Your task to perform on an android device: toggle location history Image 0: 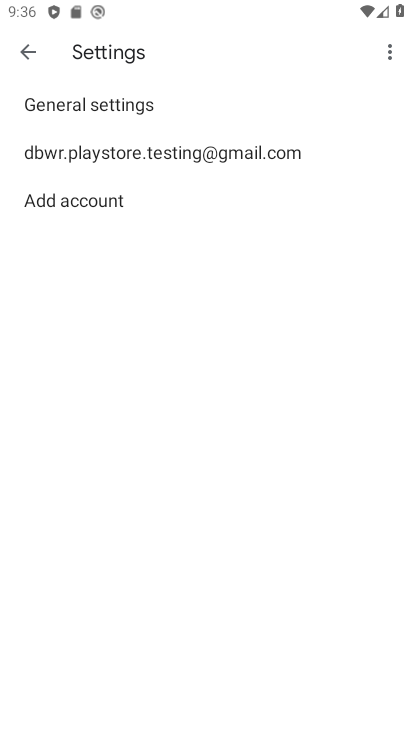
Step 0: press home button
Your task to perform on an android device: toggle location history Image 1: 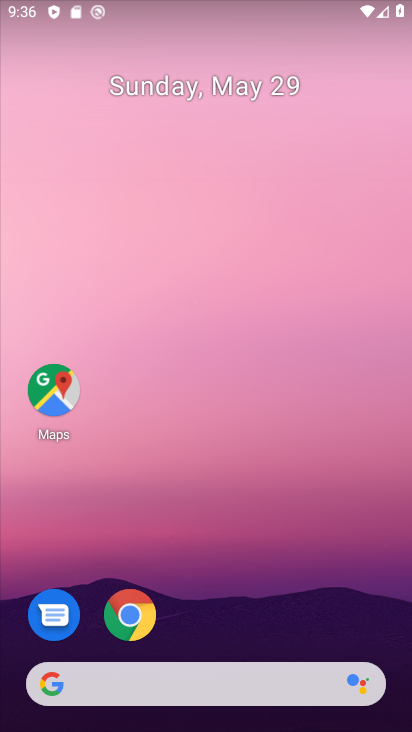
Step 1: drag from (212, 643) to (130, 67)
Your task to perform on an android device: toggle location history Image 2: 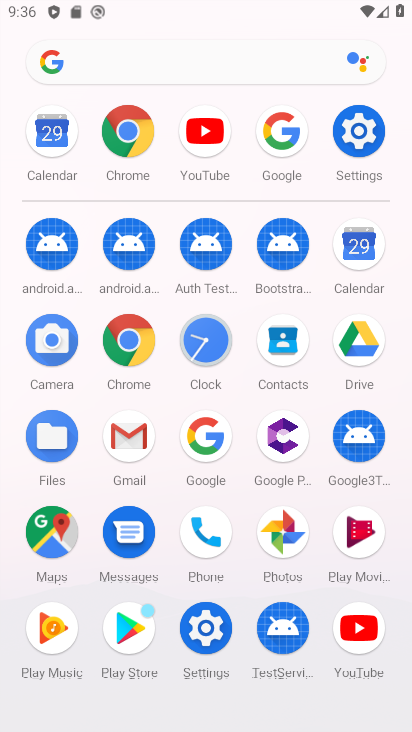
Step 2: click (374, 136)
Your task to perform on an android device: toggle location history Image 3: 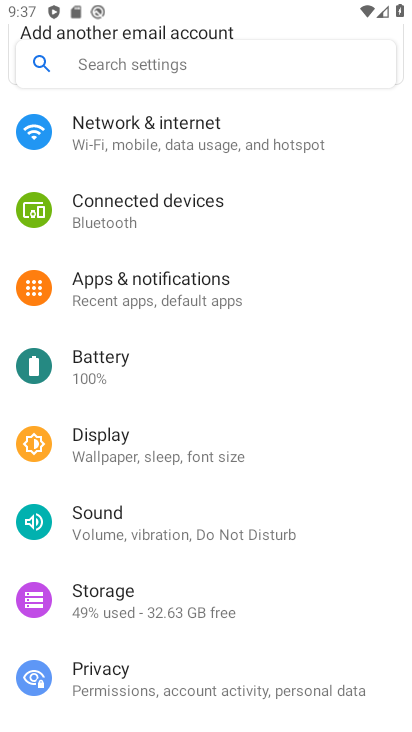
Step 3: drag from (199, 588) to (130, 126)
Your task to perform on an android device: toggle location history Image 4: 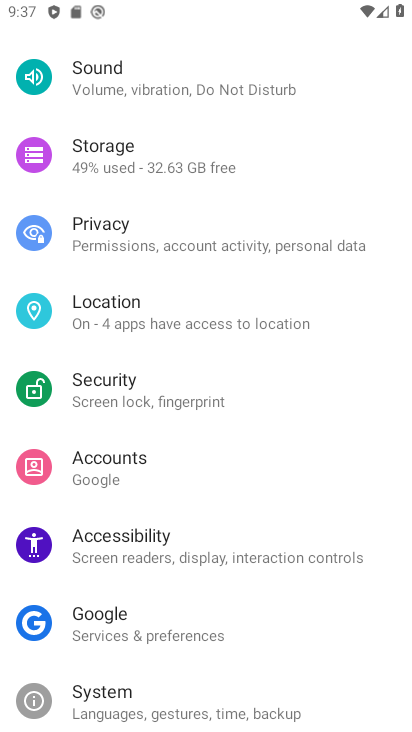
Step 4: click (103, 313)
Your task to perform on an android device: toggle location history Image 5: 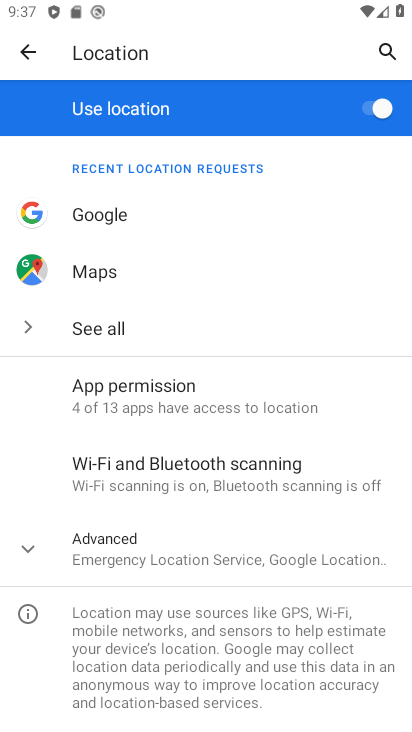
Step 5: click (192, 550)
Your task to perform on an android device: toggle location history Image 6: 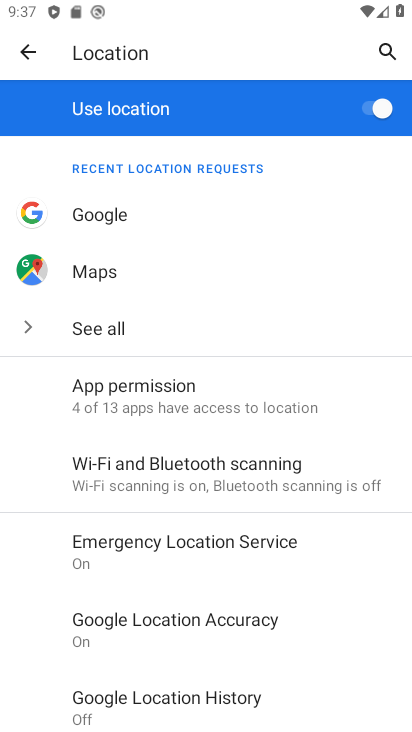
Step 6: click (227, 682)
Your task to perform on an android device: toggle location history Image 7: 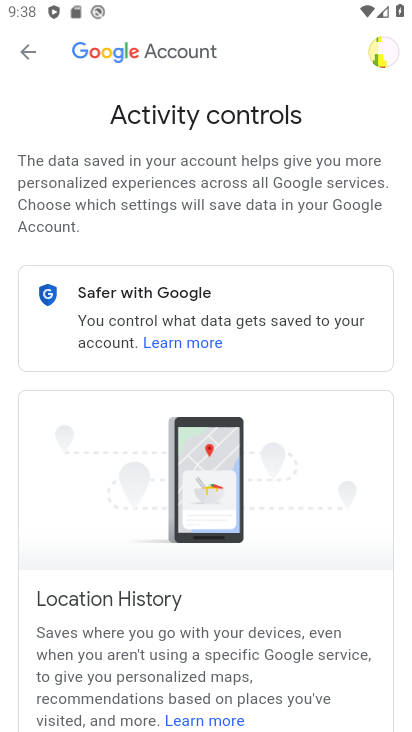
Step 7: drag from (246, 656) to (173, 144)
Your task to perform on an android device: toggle location history Image 8: 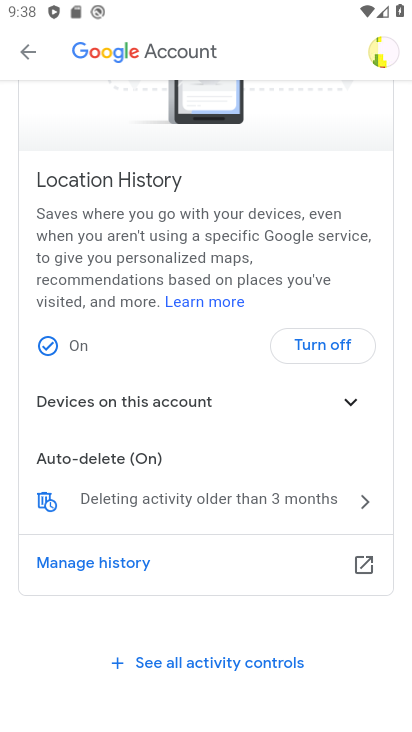
Step 8: click (289, 350)
Your task to perform on an android device: toggle location history Image 9: 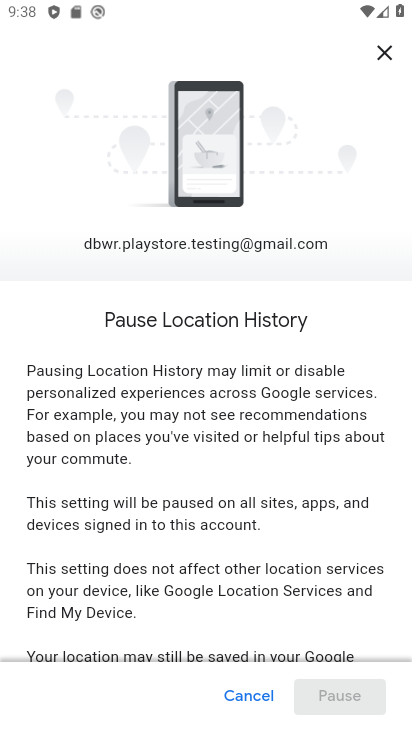
Step 9: drag from (303, 626) to (179, 9)
Your task to perform on an android device: toggle location history Image 10: 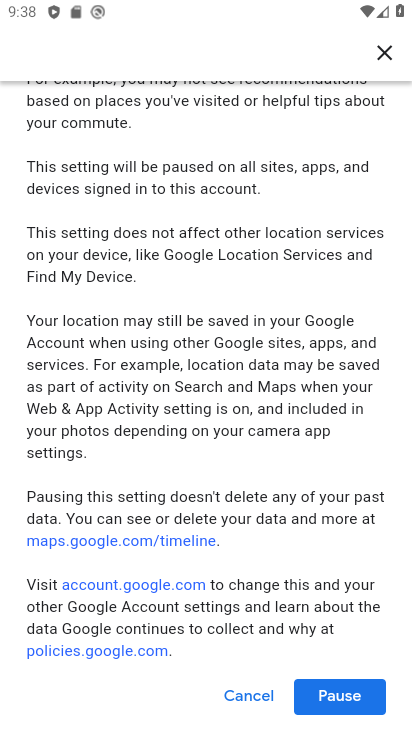
Step 10: click (341, 700)
Your task to perform on an android device: toggle location history Image 11: 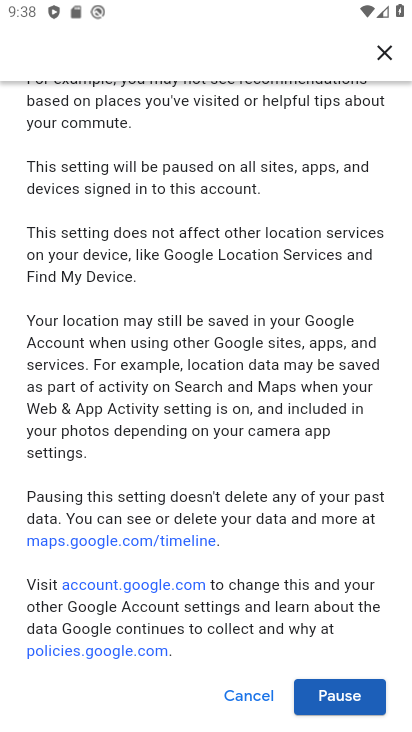
Step 11: click (345, 703)
Your task to perform on an android device: toggle location history Image 12: 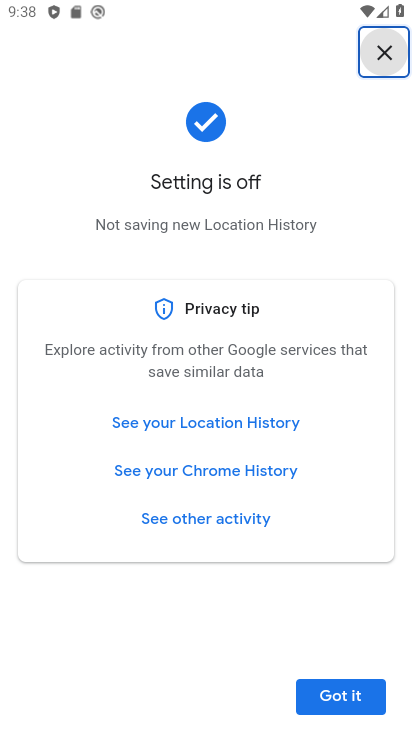
Step 12: click (346, 702)
Your task to perform on an android device: toggle location history Image 13: 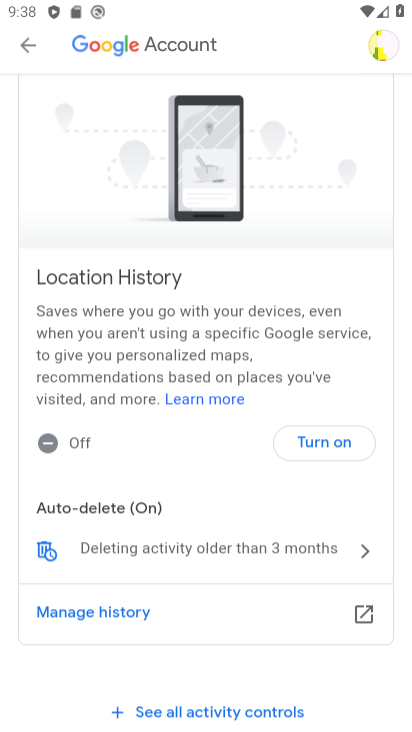
Step 13: task complete